Your task to perform on an android device: toggle data saver in the chrome app Image 0: 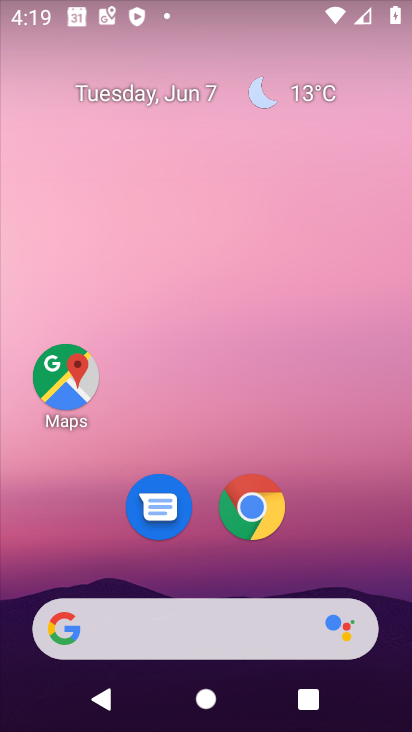
Step 0: drag from (332, 522) to (264, 39)
Your task to perform on an android device: toggle data saver in the chrome app Image 1: 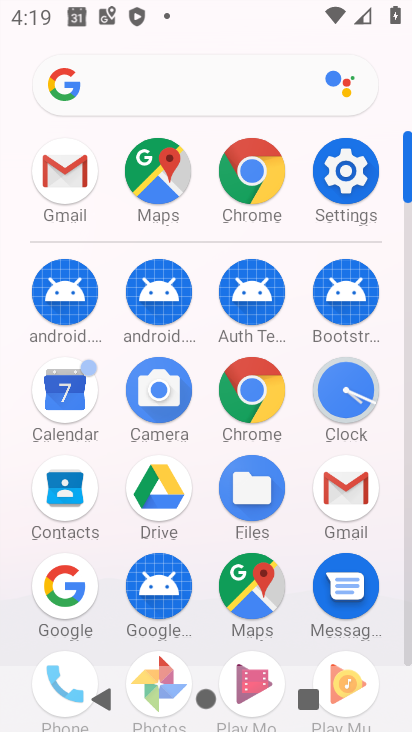
Step 1: drag from (6, 563) to (4, 209)
Your task to perform on an android device: toggle data saver in the chrome app Image 2: 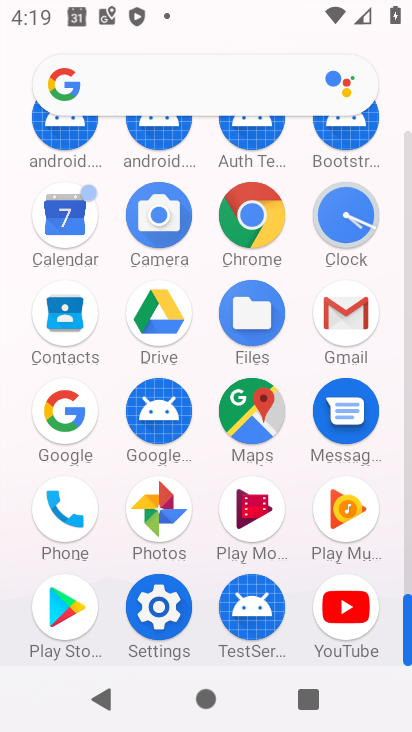
Step 2: drag from (0, 458) to (4, 246)
Your task to perform on an android device: toggle data saver in the chrome app Image 3: 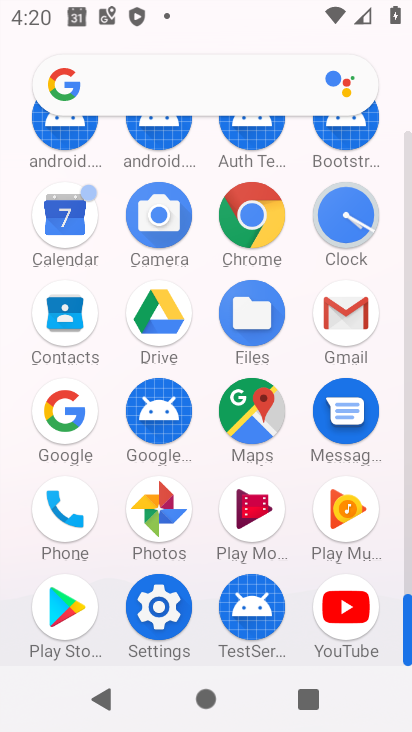
Step 3: click (253, 211)
Your task to perform on an android device: toggle data saver in the chrome app Image 4: 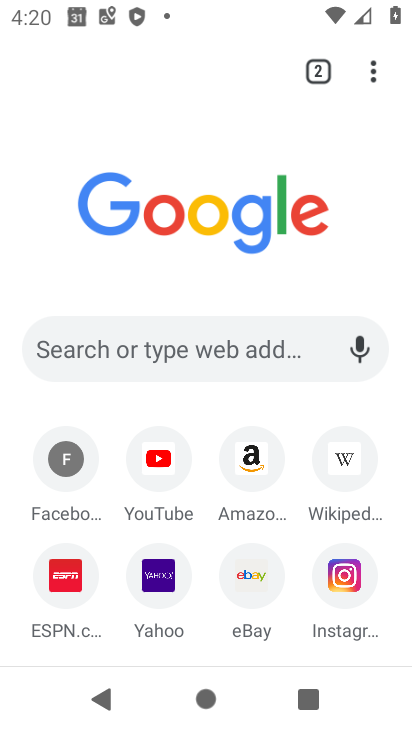
Step 4: drag from (373, 73) to (160, 506)
Your task to perform on an android device: toggle data saver in the chrome app Image 5: 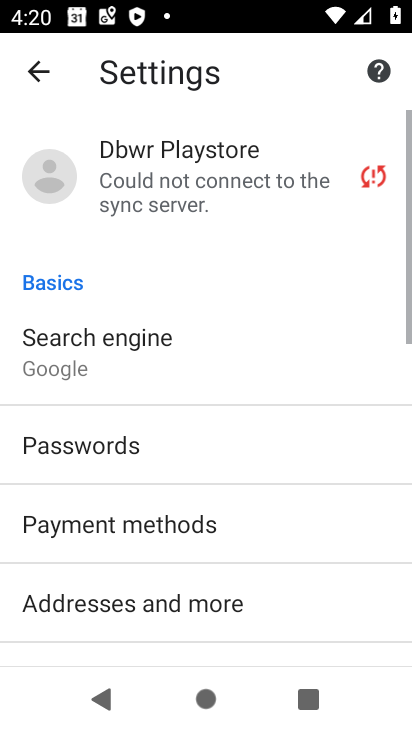
Step 5: drag from (258, 640) to (253, 154)
Your task to perform on an android device: toggle data saver in the chrome app Image 6: 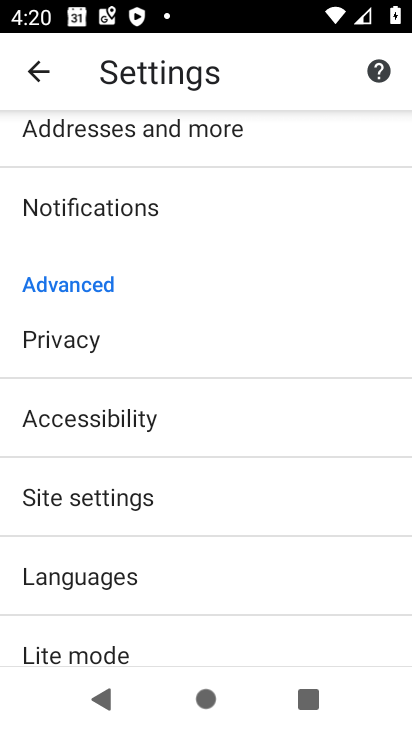
Step 6: drag from (262, 528) to (266, 177)
Your task to perform on an android device: toggle data saver in the chrome app Image 7: 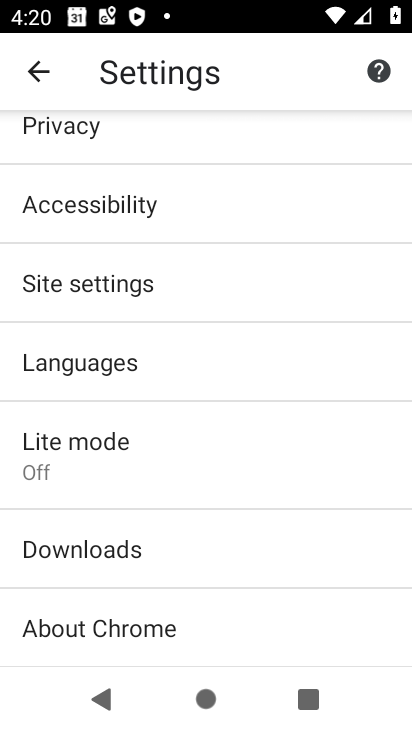
Step 7: click (125, 449)
Your task to perform on an android device: toggle data saver in the chrome app Image 8: 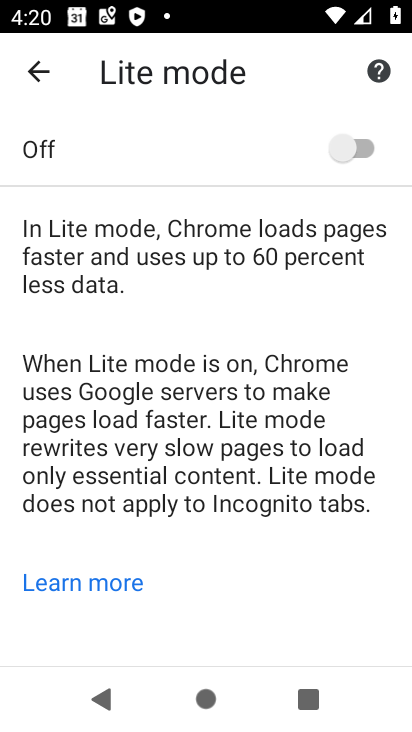
Step 8: click (326, 144)
Your task to perform on an android device: toggle data saver in the chrome app Image 9: 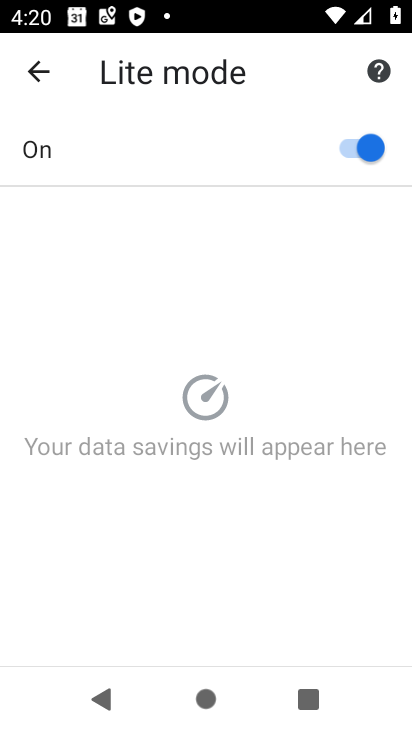
Step 9: task complete